Your task to perform on an android device: Go to settings Image 0: 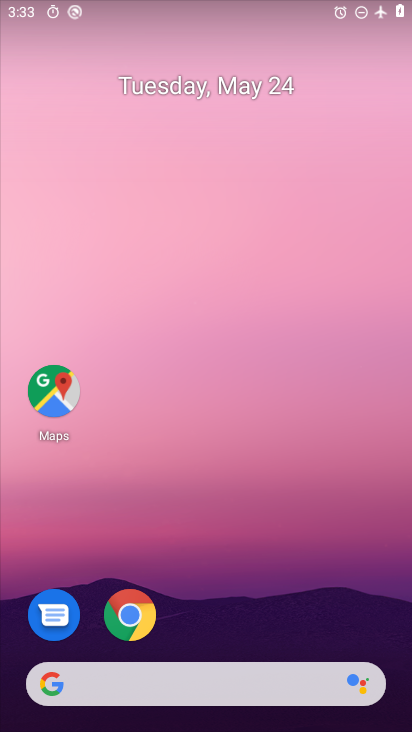
Step 0: drag from (196, 666) to (267, 211)
Your task to perform on an android device: Go to settings Image 1: 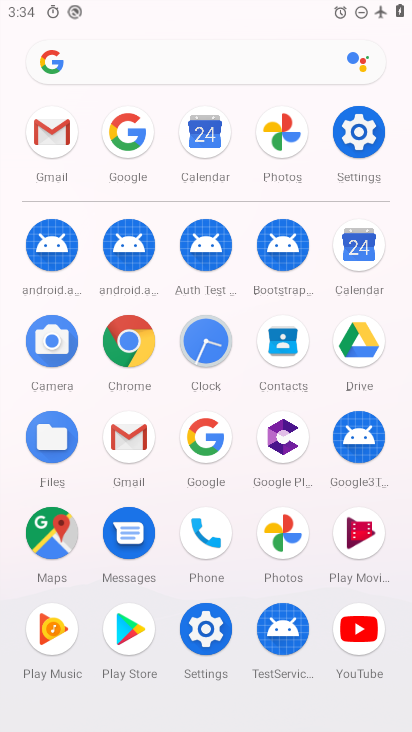
Step 1: click (359, 115)
Your task to perform on an android device: Go to settings Image 2: 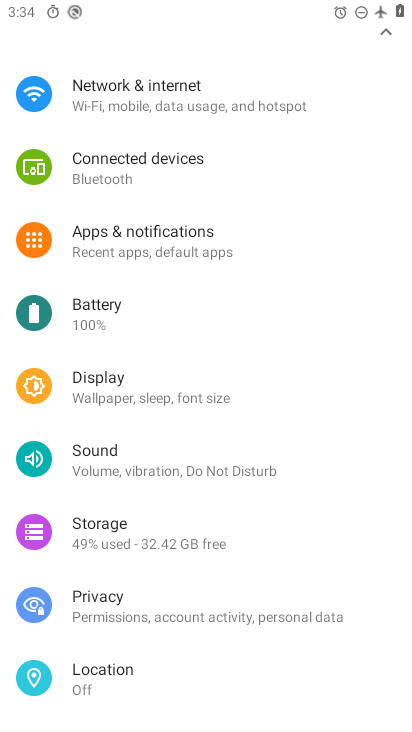
Step 2: task complete